Your task to perform on an android device: Turn on the flashlight Image 0: 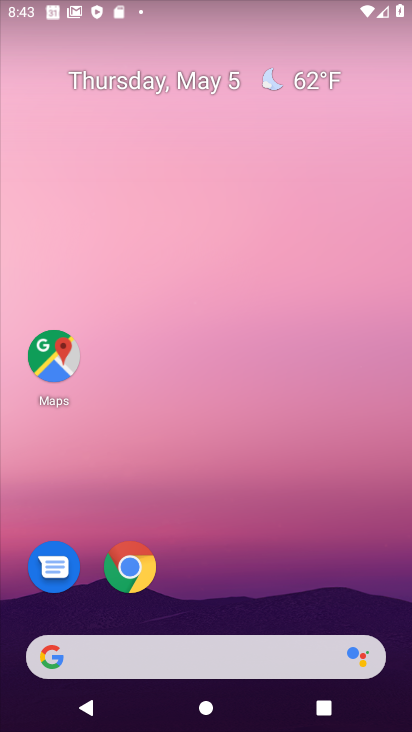
Step 0: drag from (224, 717) to (215, 211)
Your task to perform on an android device: Turn on the flashlight Image 1: 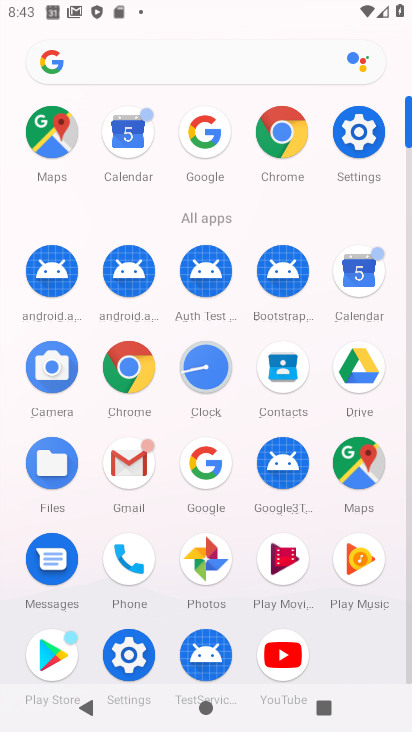
Step 1: click (367, 128)
Your task to perform on an android device: Turn on the flashlight Image 2: 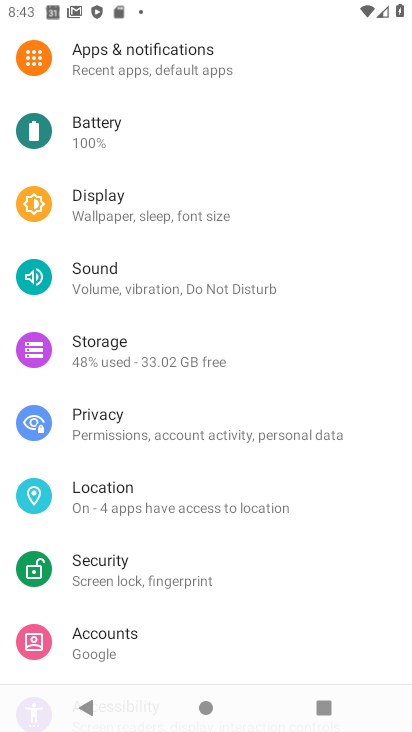
Step 2: task complete